Your task to perform on an android device: open a bookmark in the chrome app Image 0: 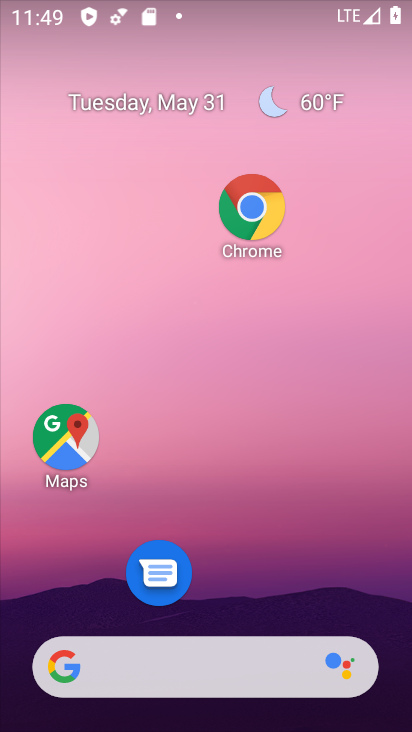
Step 0: click (230, 249)
Your task to perform on an android device: open a bookmark in the chrome app Image 1: 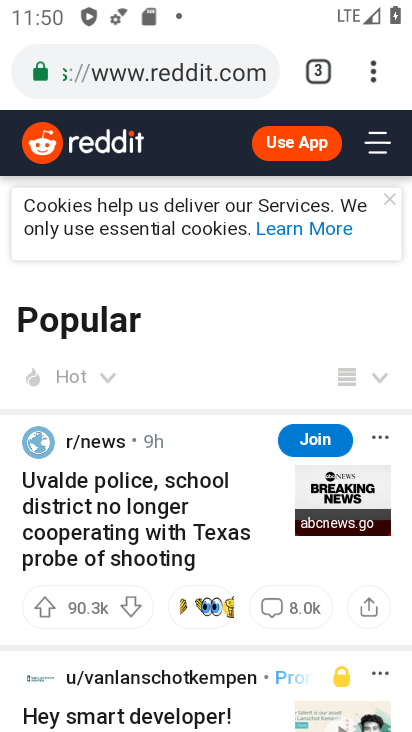
Step 1: drag from (363, 74) to (165, 264)
Your task to perform on an android device: open a bookmark in the chrome app Image 2: 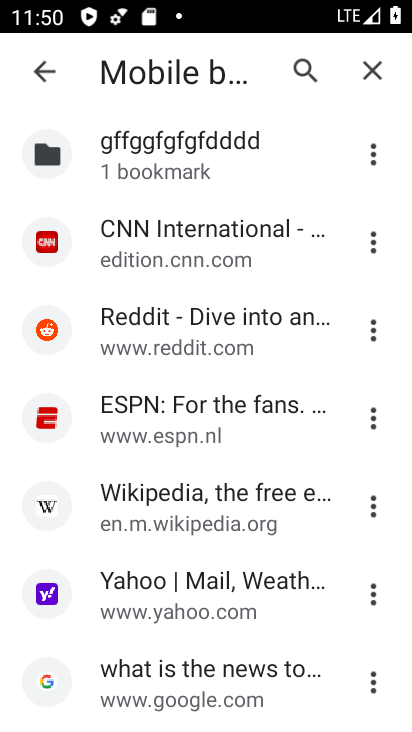
Step 2: click (193, 577)
Your task to perform on an android device: open a bookmark in the chrome app Image 3: 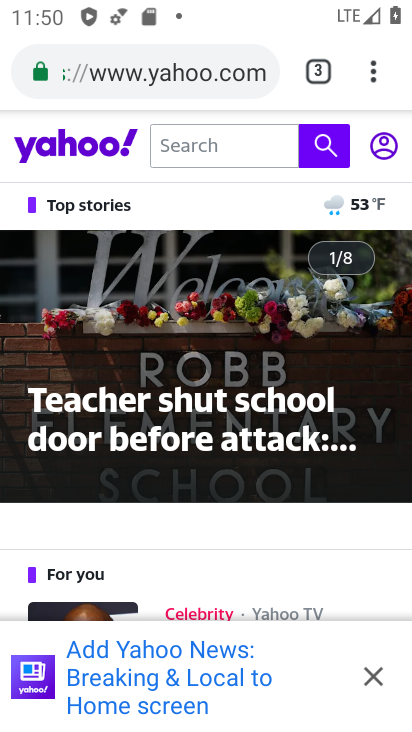
Step 3: task complete